Your task to perform on an android device: turn on wifi Image 0: 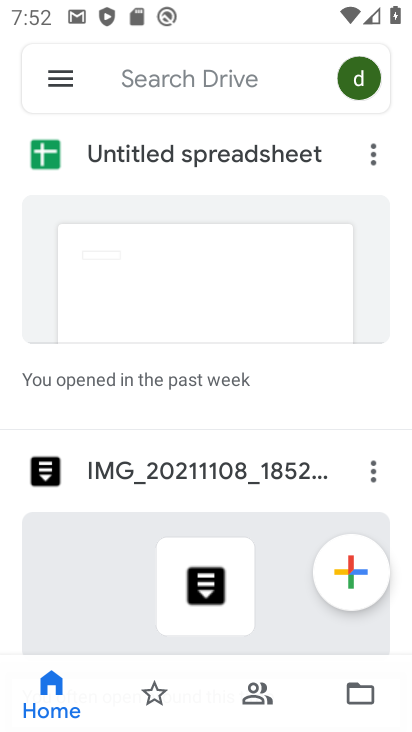
Step 0: press home button
Your task to perform on an android device: turn on wifi Image 1: 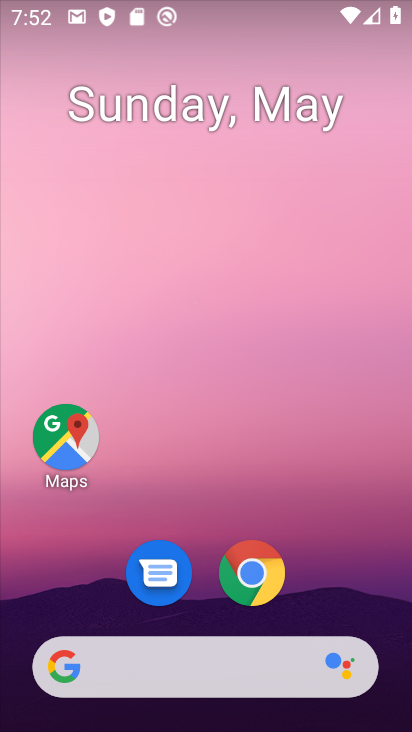
Step 1: drag from (241, 473) to (253, 1)
Your task to perform on an android device: turn on wifi Image 2: 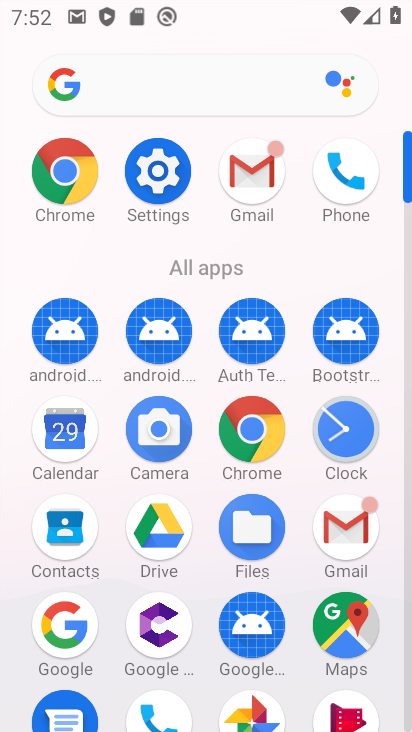
Step 2: click (160, 169)
Your task to perform on an android device: turn on wifi Image 3: 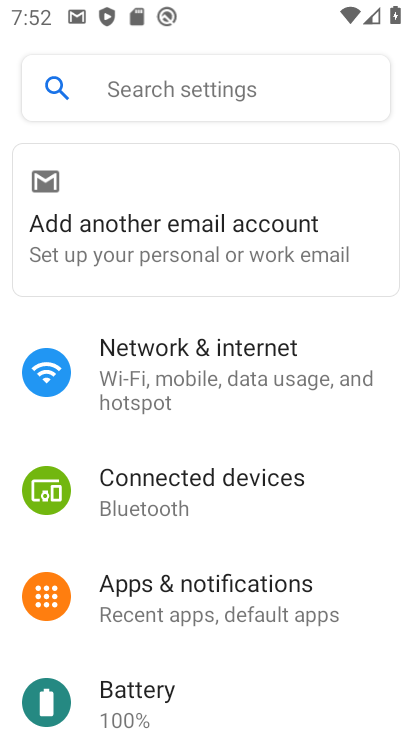
Step 3: click (213, 367)
Your task to perform on an android device: turn on wifi Image 4: 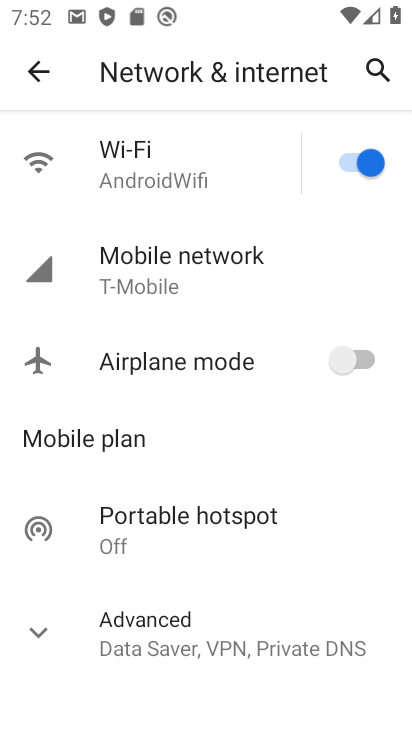
Step 4: task complete